Your task to perform on an android device: delete location history Image 0: 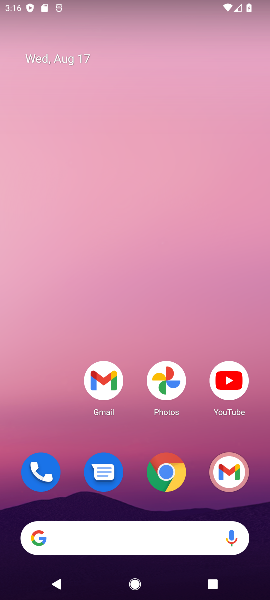
Step 0: drag from (143, 452) to (153, 93)
Your task to perform on an android device: delete location history Image 1: 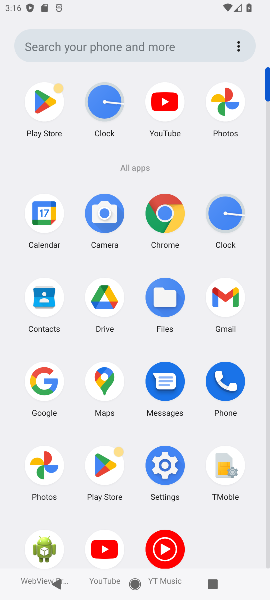
Step 1: drag from (137, 438) to (121, 58)
Your task to perform on an android device: delete location history Image 2: 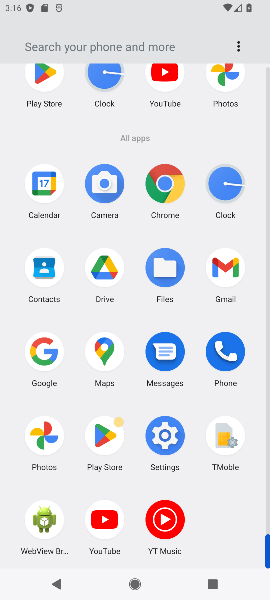
Step 2: click (104, 355)
Your task to perform on an android device: delete location history Image 3: 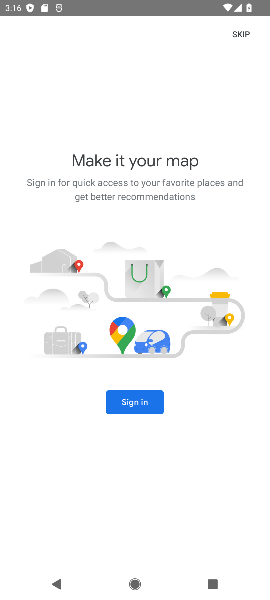
Step 3: click (140, 399)
Your task to perform on an android device: delete location history Image 4: 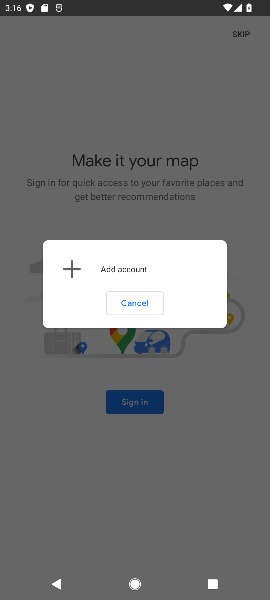
Step 4: task complete